Your task to perform on an android device: change timer sound Image 0: 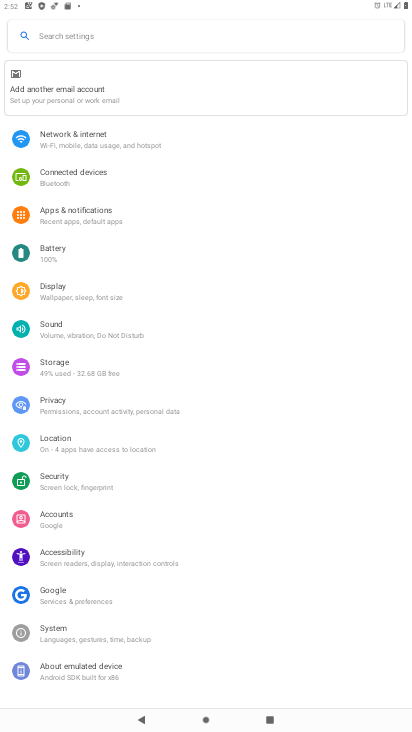
Step 0: press home button
Your task to perform on an android device: change timer sound Image 1: 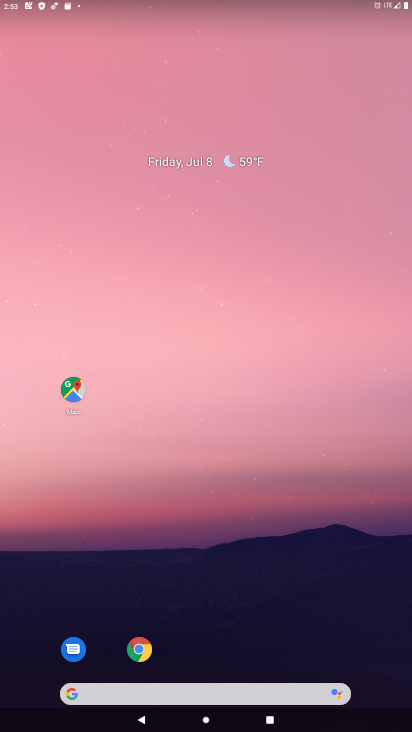
Step 1: drag from (361, 609) to (270, 174)
Your task to perform on an android device: change timer sound Image 2: 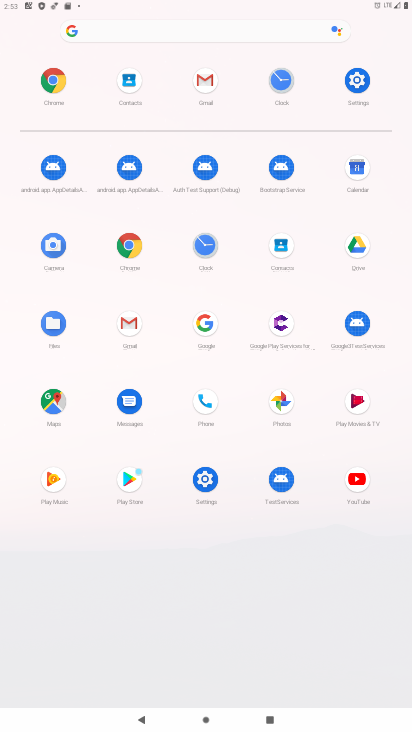
Step 2: click (200, 240)
Your task to perform on an android device: change timer sound Image 3: 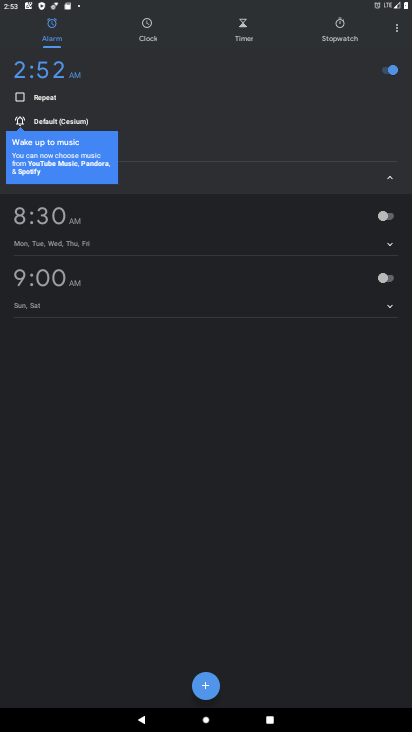
Step 3: click (394, 35)
Your task to perform on an android device: change timer sound Image 4: 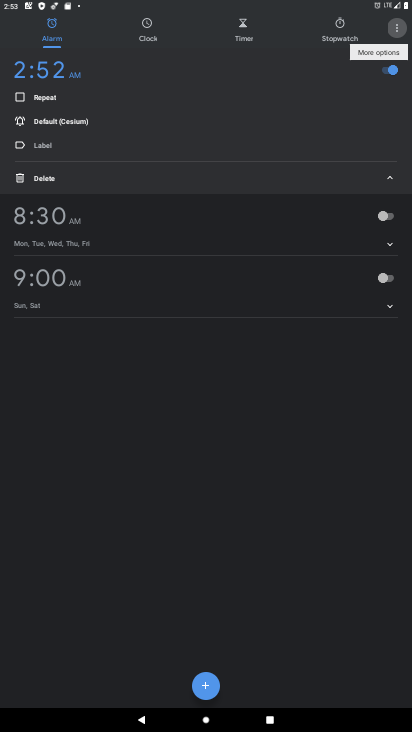
Step 4: click (393, 34)
Your task to perform on an android device: change timer sound Image 5: 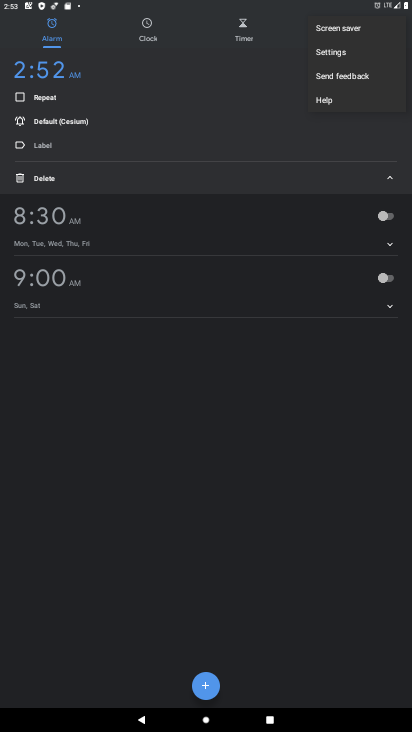
Step 5: click (327, 57)
Your task to perform on an android device: change timer sound Image 6: 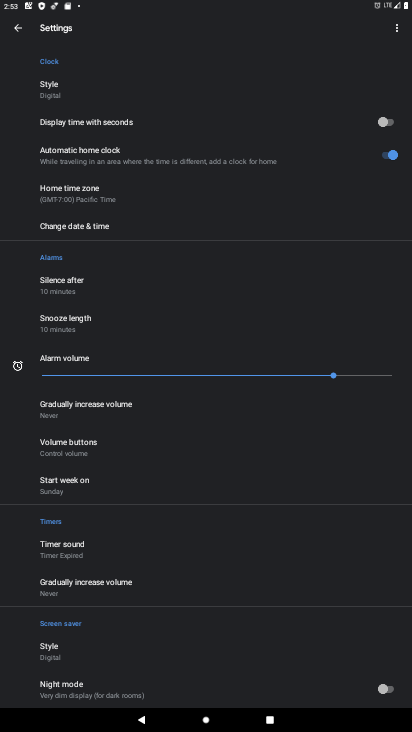
Step 6: click (56, 550)
Your task to perform on an android device: change timer sound Image 7: 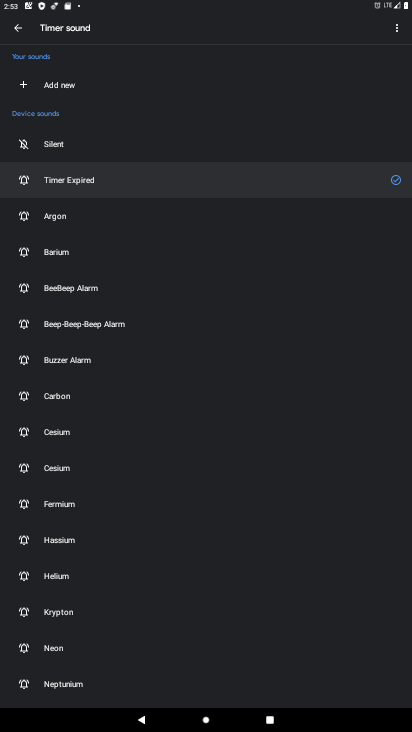
Step 7: click (68, 218)
Your task to perform on an android device: change timer sound Image 8: 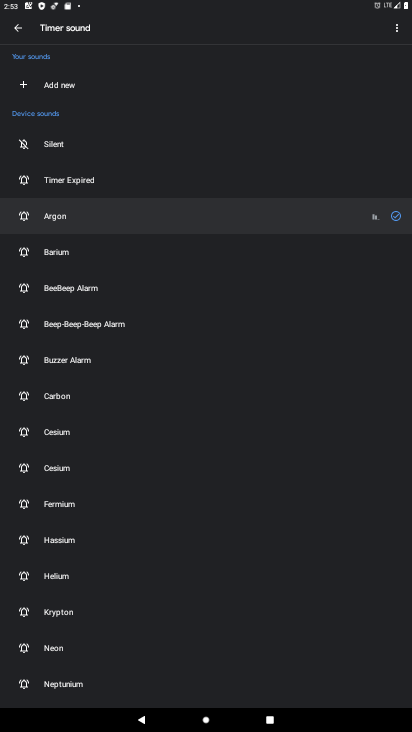
Step 8: task complete